Your task to perform on an android device: How much does a 2 bedroom apartment rent for in Philadelphia? Image 0: 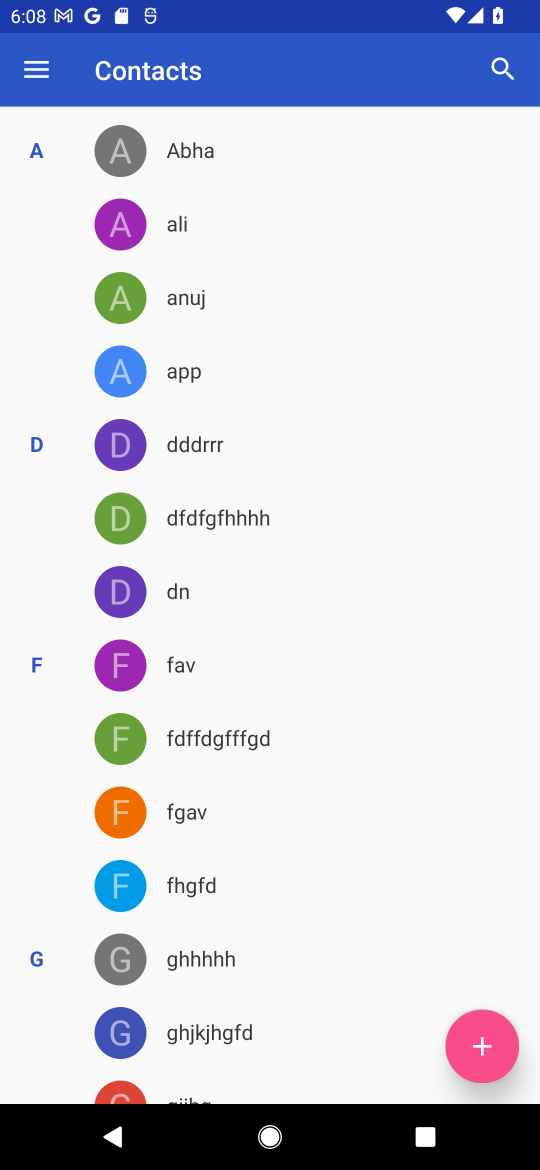
Step 0: press home button
Your task to perform on an android device: How much does a 2 bedroom apartment rent for in Philadelphia? Image 1: 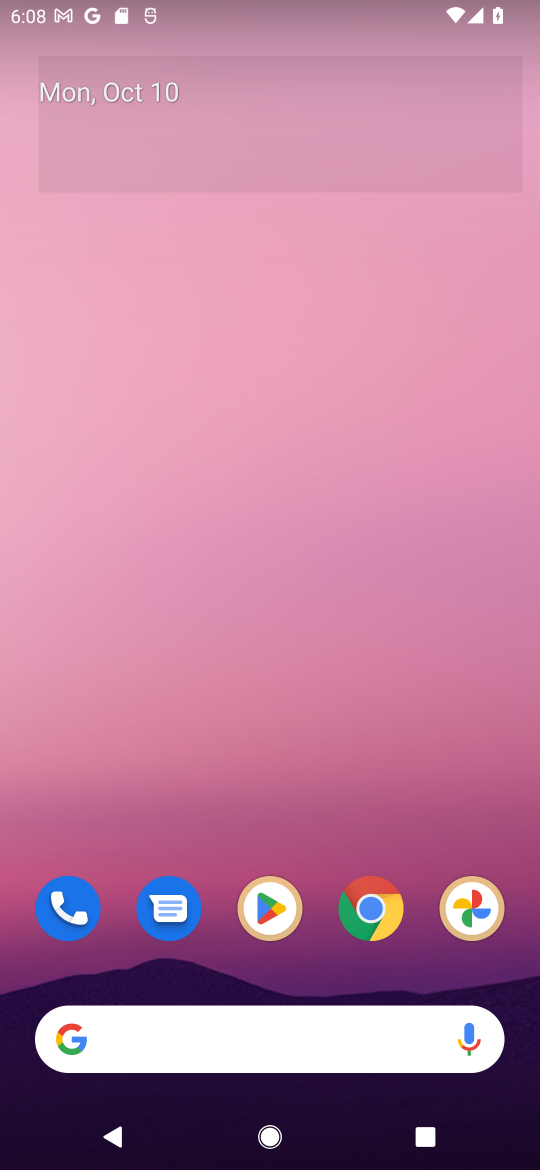
Step 1: drag from (300, 933) to (56, 23)
Your task to perform on an android device: How much does a 2 bedroom apartment rent for in Philadelphia? Image 2: 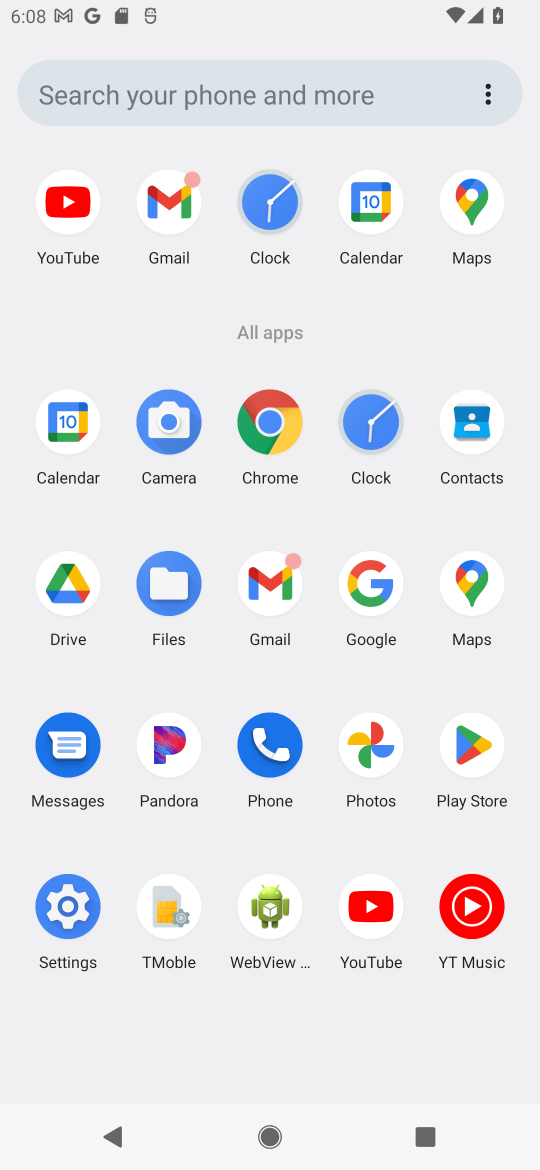
Step 2: click (262, 417)
Your task to perform on an android device: How much does a 2 bedroom apartment rent for in Philadelphia? Image 3: 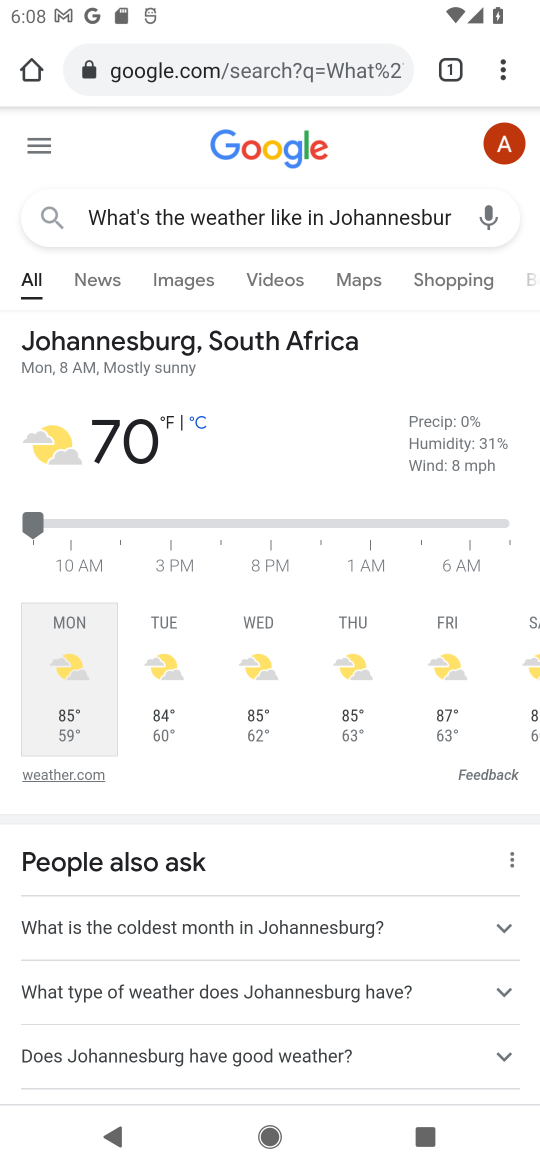
Step 3: click (274, 66)
Your task to perform on an android device: How much does a 2 bedroom apartment rent for in Philadelphia? Image 4: 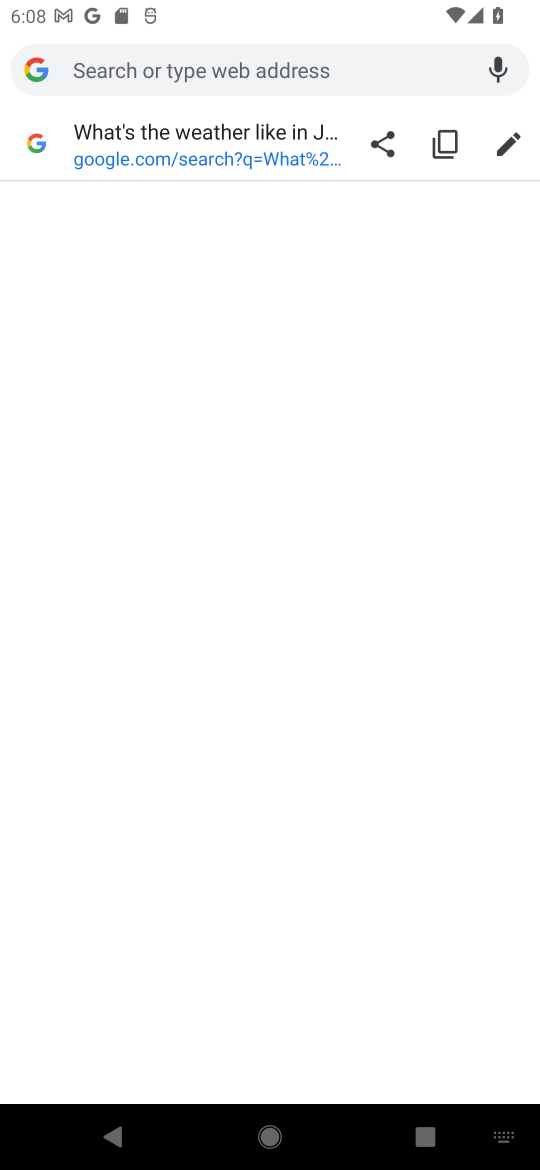
Step 4: type "How much does a 2 bedroom apartment rent for in Philadelphia?"
Your task to perform on an android device: How much does a 2 bedroom apartment rent for in Philadelphia? Image 5: 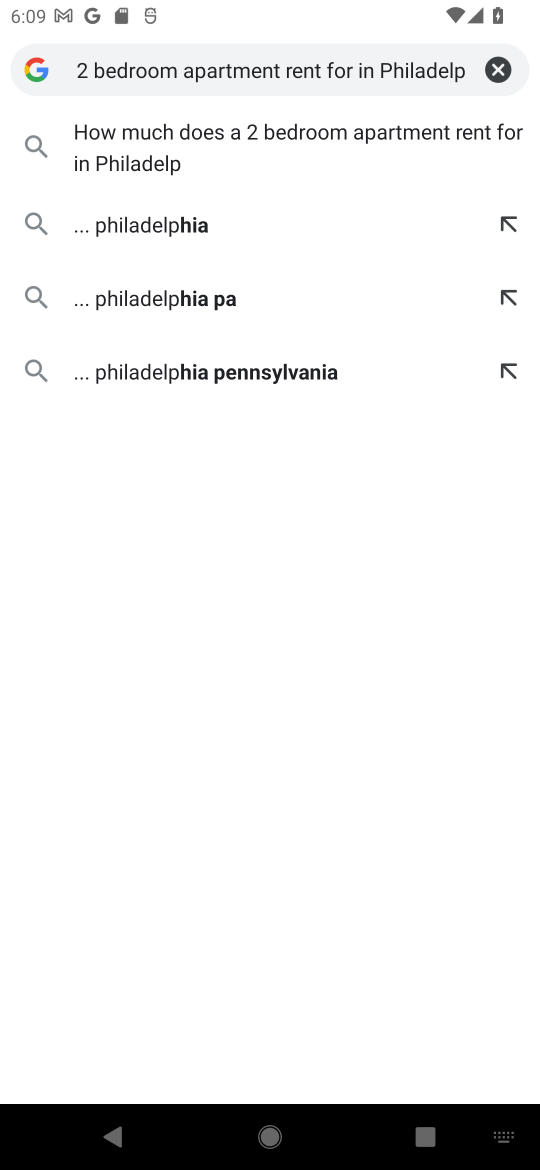
Step 5: type "hia?"
Your task to perform on an android device: How much does a 2 bedroom apartment rent for in Philadelphia? Image 6: 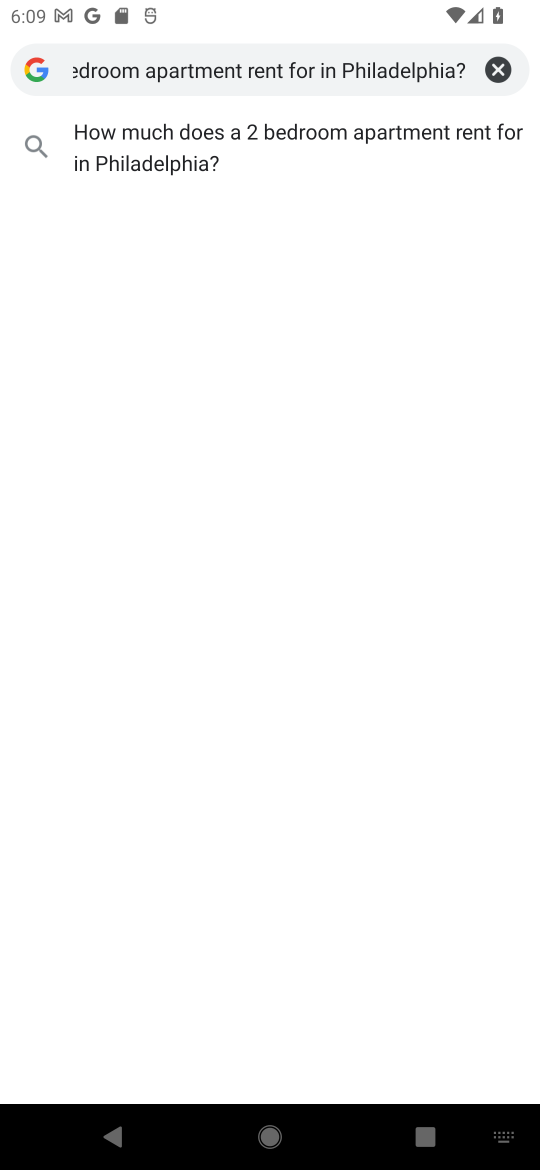
Step 6: press enter
Your task to perform on an android device: How much does a 2 bedroom apartment rent for in Philadelphia? Image 7: 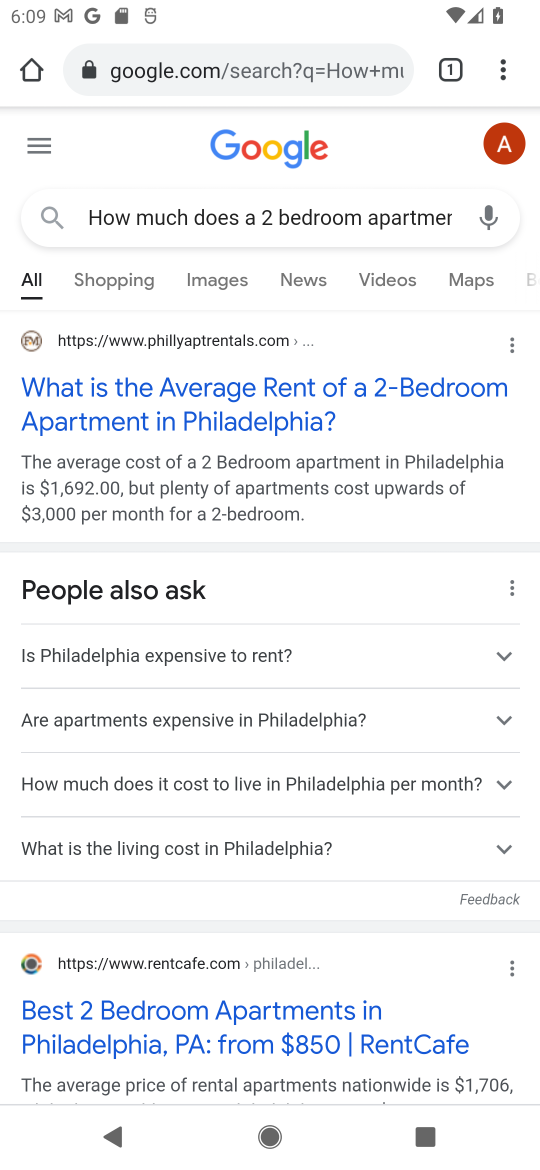
Step 7: task complete